Your task to perform on an android device: change text size in settings app Image 0: 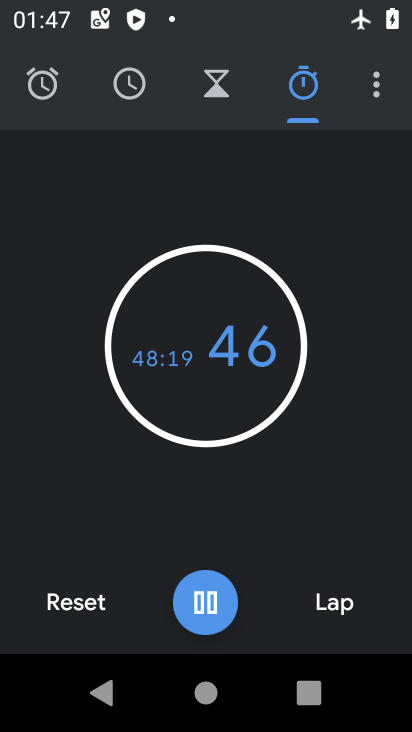
Step 0: press home button
Your task to perform on an android device: change text size in settings app Image 1: 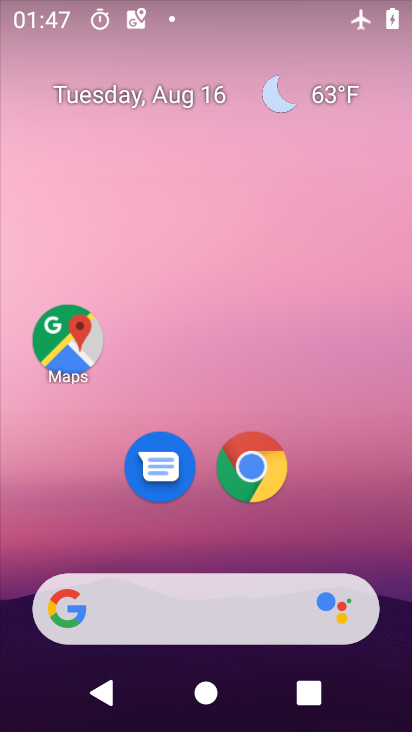
Step 1: drag from (353, 536) to (369, 114)
Your task to perform on an android device: change text size in settings app Image 2: 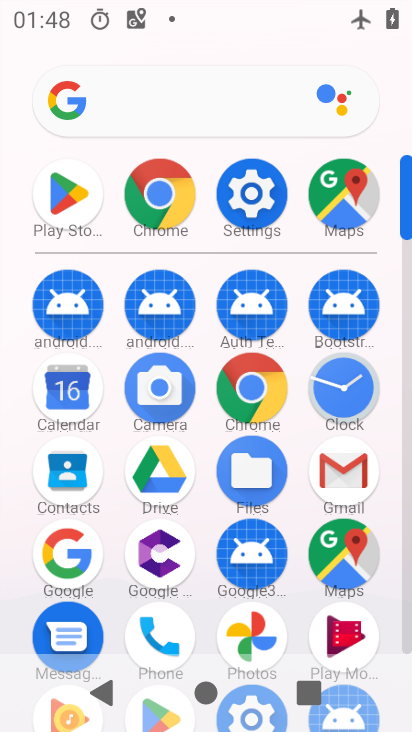
Step 2: click (248, 194)
Your task to perform on an android device: change text size in settings app Image 3: 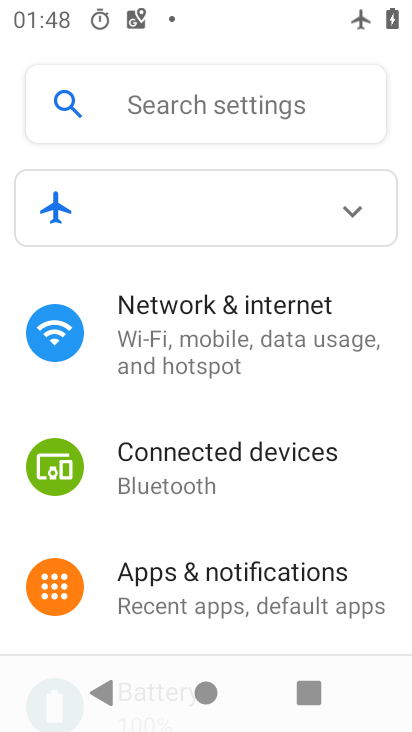
Step 3: drag from (374, 514) to (375, 409)
Your task to perform on an android device: change text size in settings app Image 4: 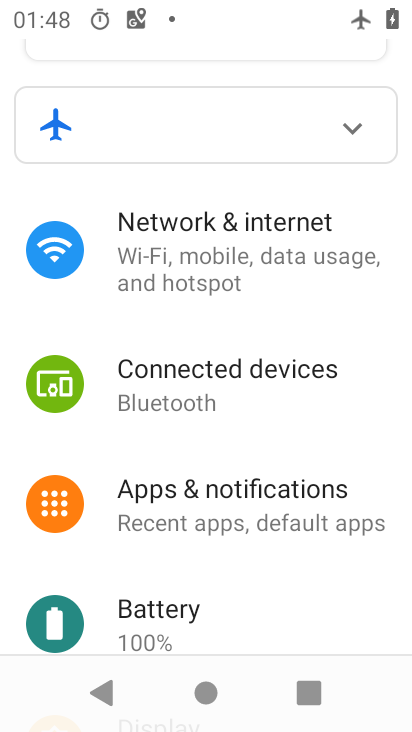
Step 4: drag from (365, 544) to (374, 438)
Your task to perform on an android device: change text size in settings app Image 5: 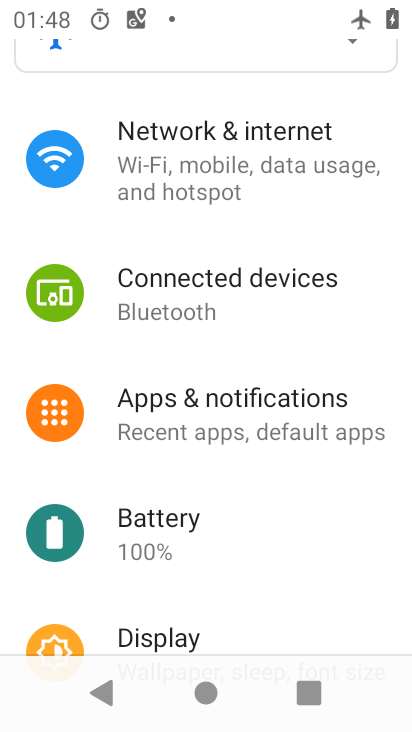
Step 5: drag from (347, 544) to (353, 426)
Your task to perform on an android device: change text size in settings app Image 6: 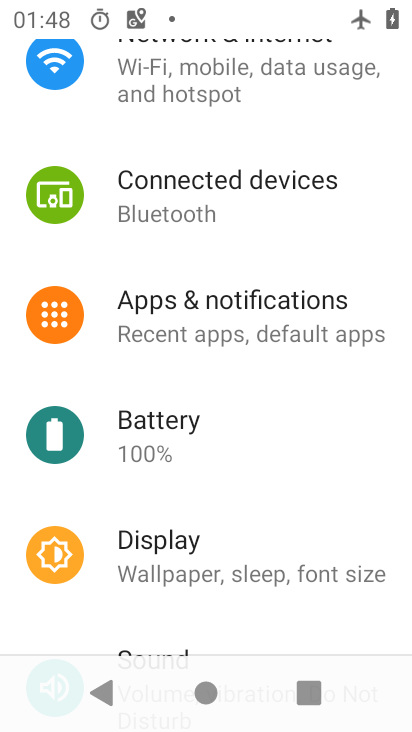
Step 6: drag from (332, 598) to (348, 423)
Your task to perform on an android device: change text size in settings app Image 7: 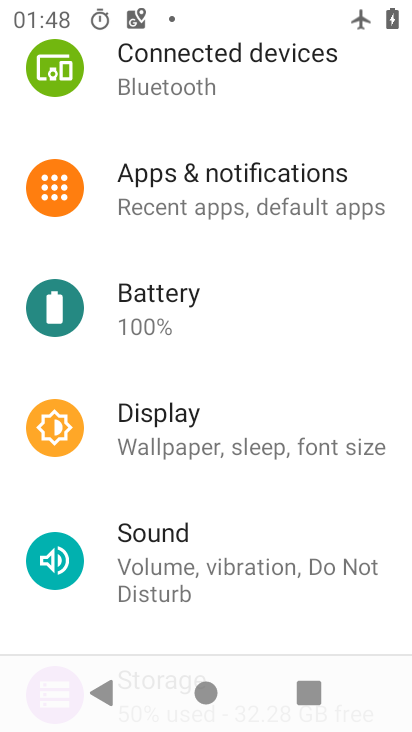
Step 7: drag from (348, 564) to (345, 437)
Your task to perform on an android device: change text size in settings app Image 8: 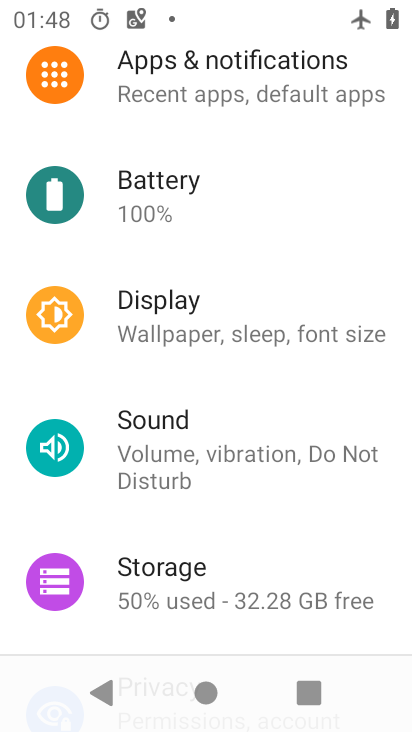
Step 8: click (313, 346)
Your task to perform on an android device: change text size in settings app Image 9: 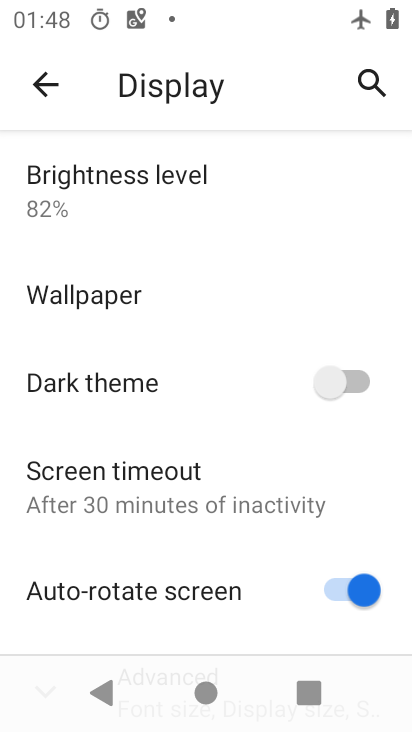
Step 9: drag from (288, 549) to (284, 418)
Your task to perform on an android device: change text size in settings app Image 10: 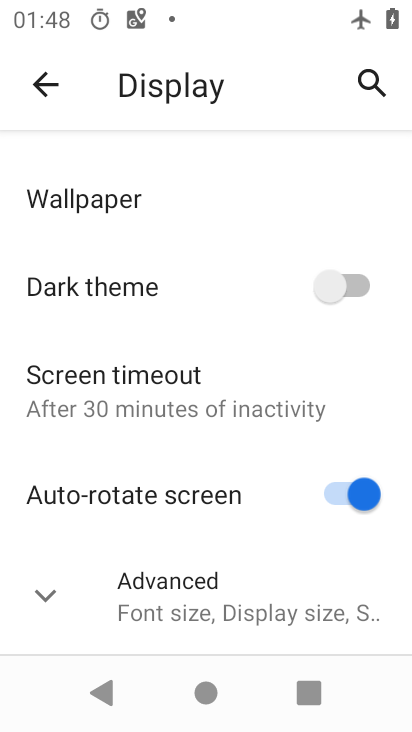
Step 10: click (255, 593)
Your task to perform on an android device: change text size in settings app Image 11: 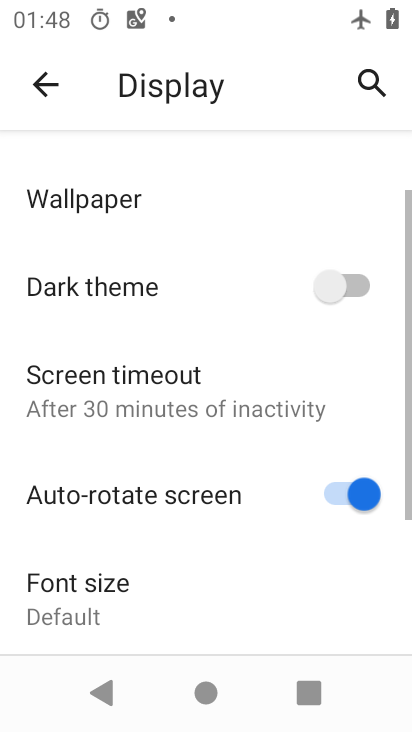
Step 11: drag from (263, 594) to (263, 428)
Your task to perform on an android device: change text size in settings app Image 12: 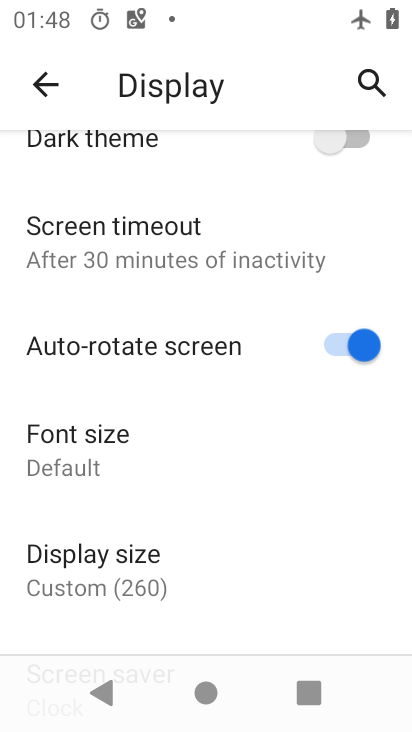
Step 12: click (174, 447)
Your task to perform on an android device: change text size in settings app Image 13: 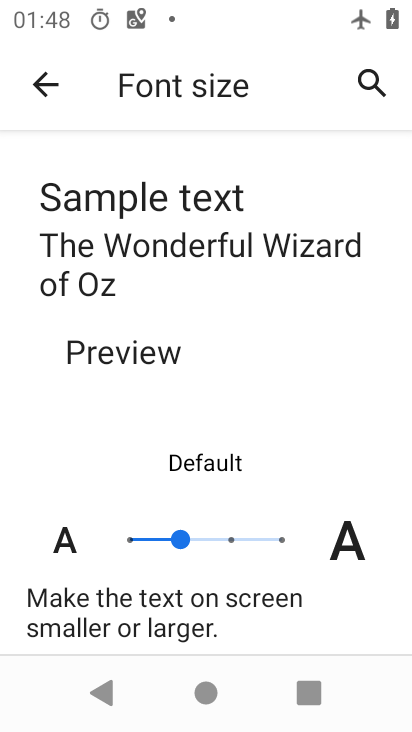
Step 13: click (272, 542)
Your task to perform on an android device: change text size in settings app Image 14: 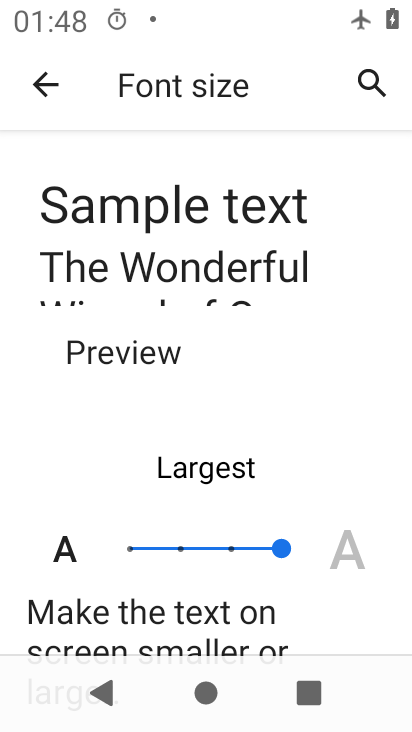
Step 14: task complete